Your task to perform on an android device: Open the stopwatch Image 0: 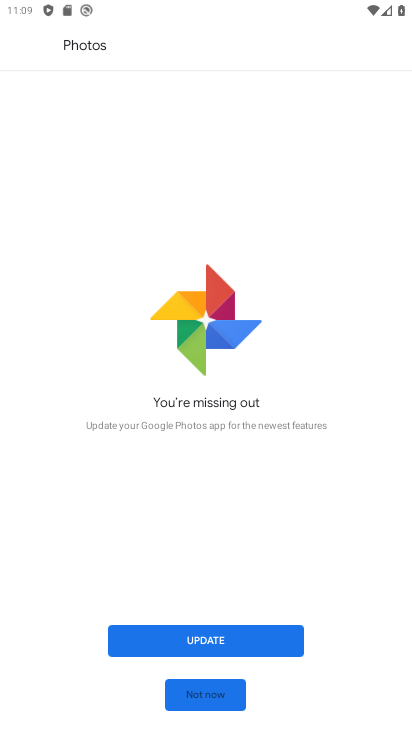
Step 0: press home button
Your task to perform on an android device: Open the stopwatch Image 1: 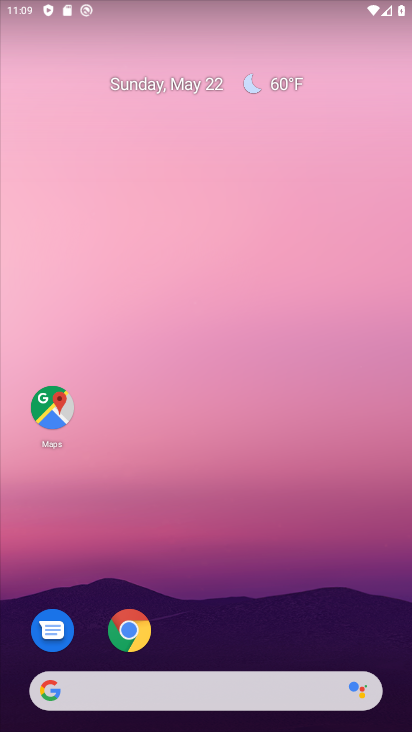
Step 1: drag from (265, 591) to (287, 90)
Your task to perform on an android device: Open the stopwatch Image 2: 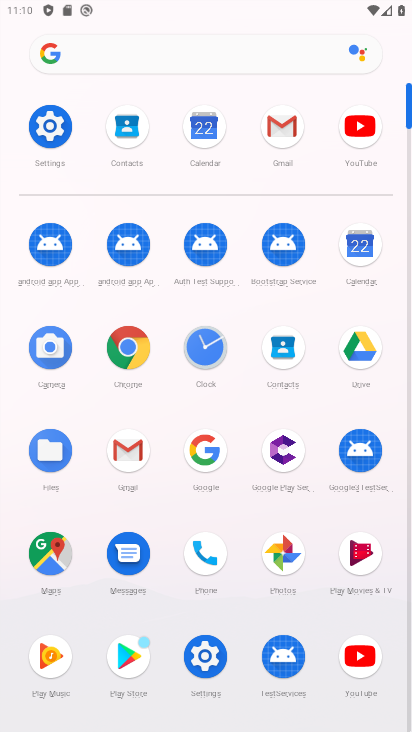
Step 2: click (206, 346)
Your task to perform on an android device: Open the stopwatch Image 3: 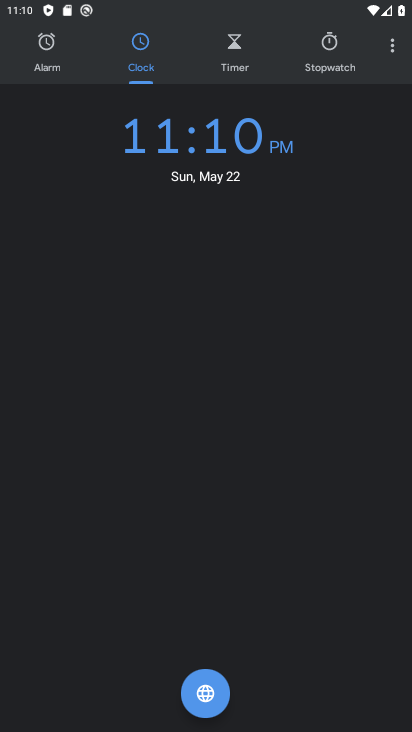
Step 3: click (332, 45)
Your task to perform on an android device: Open the stopwatch Image 4: 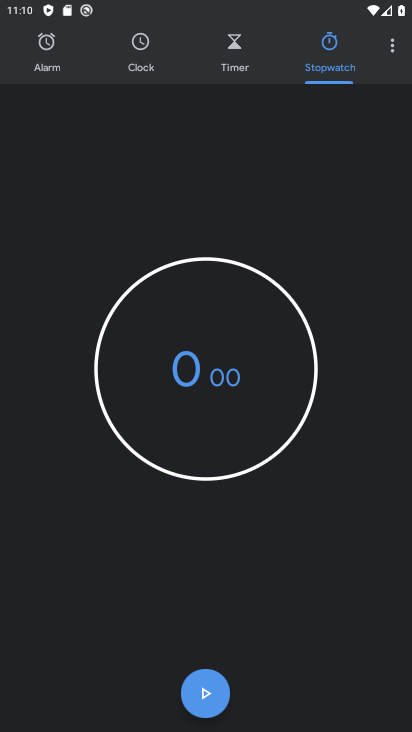
Step 4: task complete